Your task to perform on an android device: Open Google Chrome and open the bookmarks view Image 0: 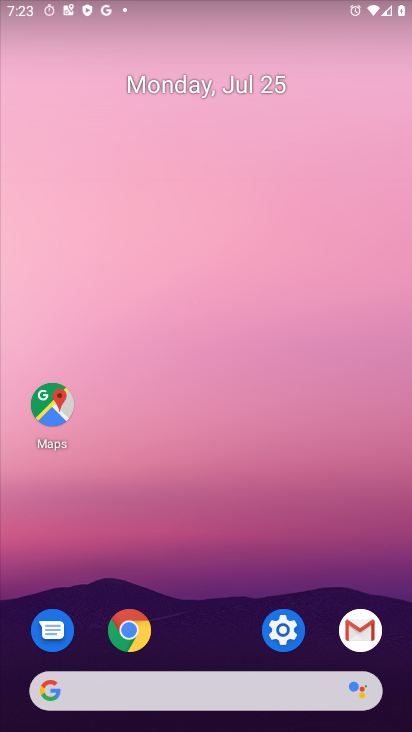
Step 0: click (123, 641)
Your task to perform on an android device: Open Google Chrome and open the bookmarks view Image 1: 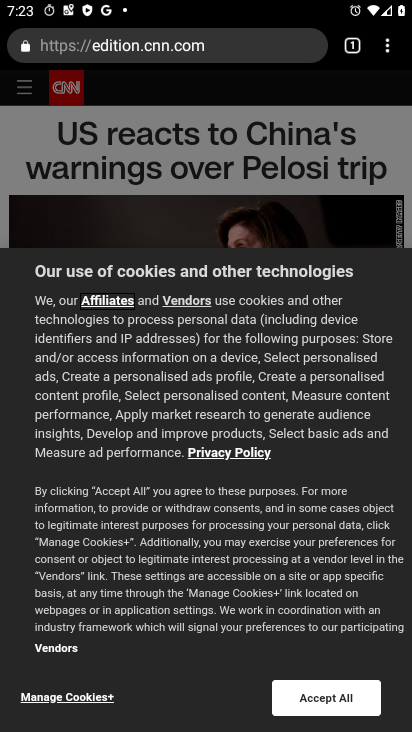
Step 1: click (388, 57)
Your task to perform on an android device: Open Google Chrome and open the bookmarks view Image 2: 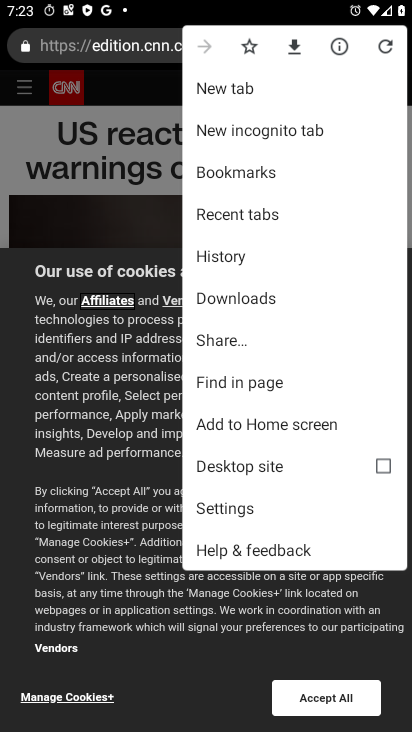
Step 2: click (251, 173)
Your task to perform on an android device: Open Google Chrome and open the bookmarks view Image 3: 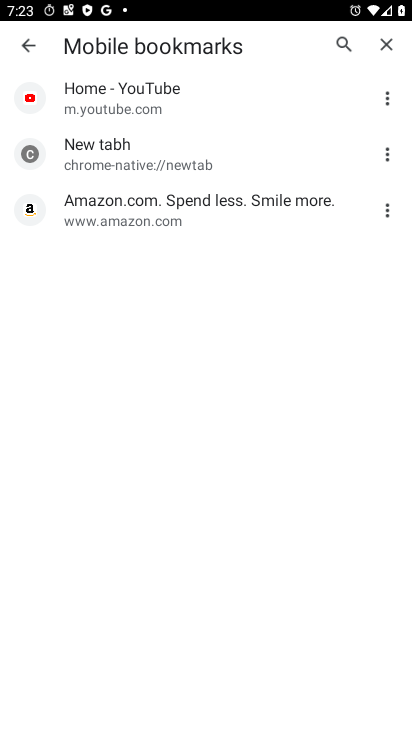
Step 3: task complete